Your task to perform on an android device: move a message to another label in the gmail app Image 0: 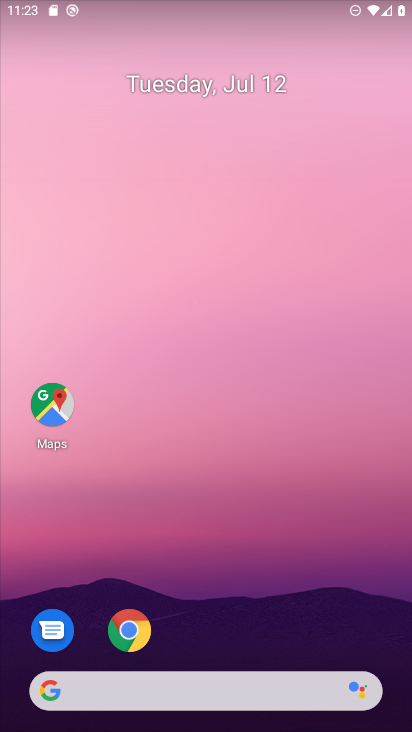
Step 0: drag from (310, 625) to (291, 164)
Your task to perform on an android device: move a message to another label in the gmail app Image 1: 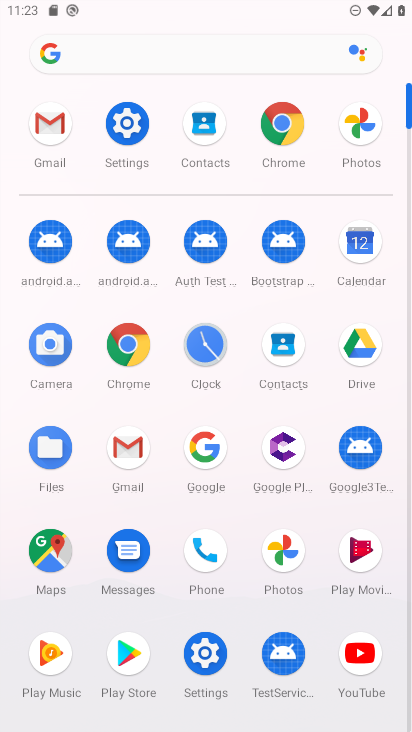
Step 1: click (40, 128)
Your task to perform on an android device: move a message to another label in the gmail app Image 2: 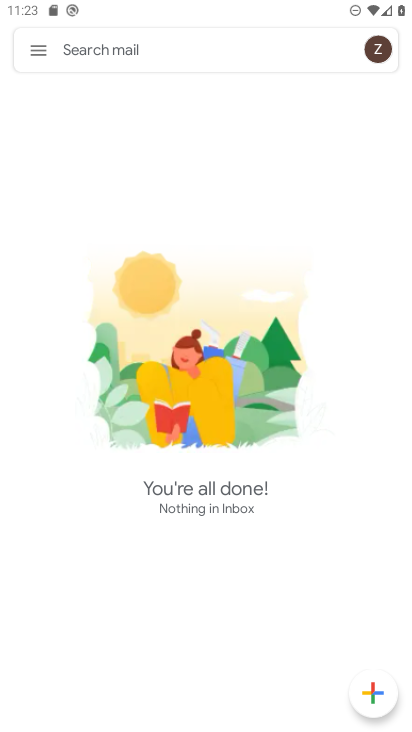
Step 2: click (37, 53)
Your task to perform on an android device: move a message to another label in the gmail app Image 3: 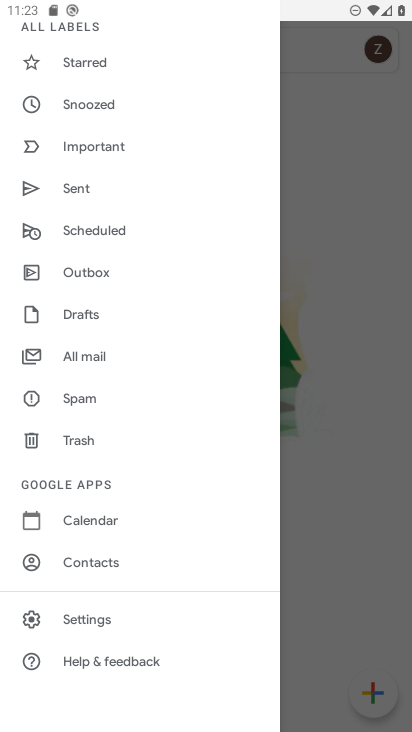
Step 3: click (104, 352)
Your task to perform on an android device: move a message to another label in the gmail app Image 4: 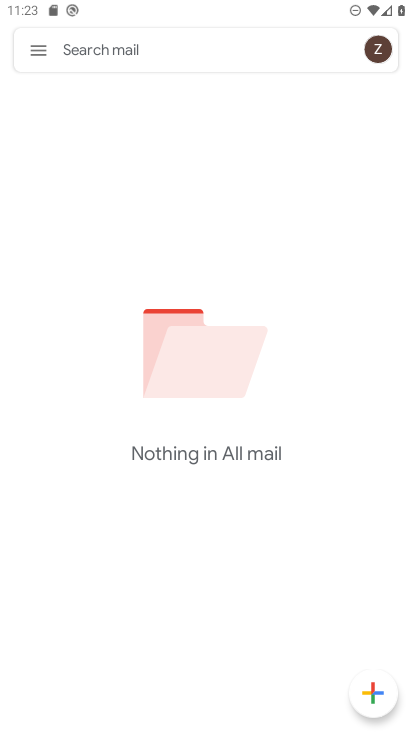
Step 4: task complete